Your task to perform on an android device: snooze an email in the gmail app Image 0: 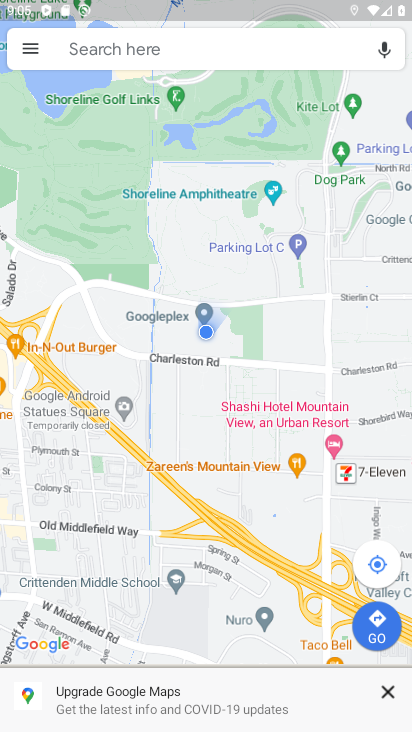
Step 0: press home button
Your task to perform on an android device: snooze an email in the gmail app Image 1: 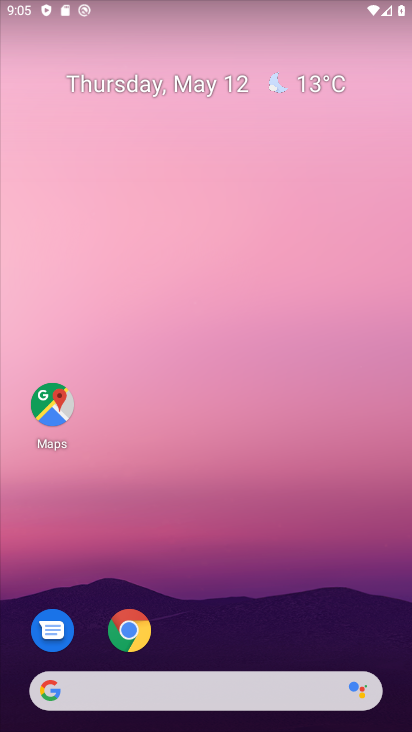
Step 1: drag from (141, 689) to (218, 251)
Your task to perform on an android device: snooze an email in the gmail app Image 2: 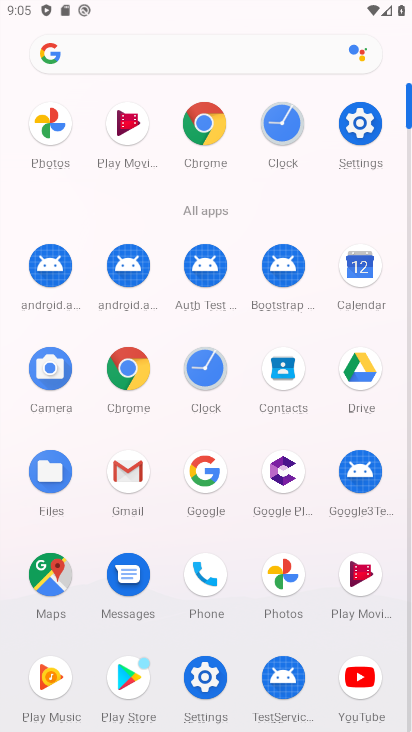
Step 2: click (129, 480)
Your task to perform on an android device: snooze an email in the gmail app Image 3: 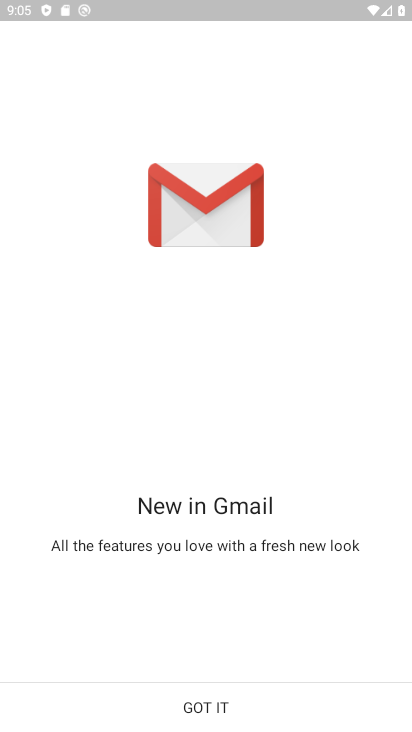
Step 3: click (216, 726)
Your task to perform on an android device: snooze an email in the gmail app Image 4: 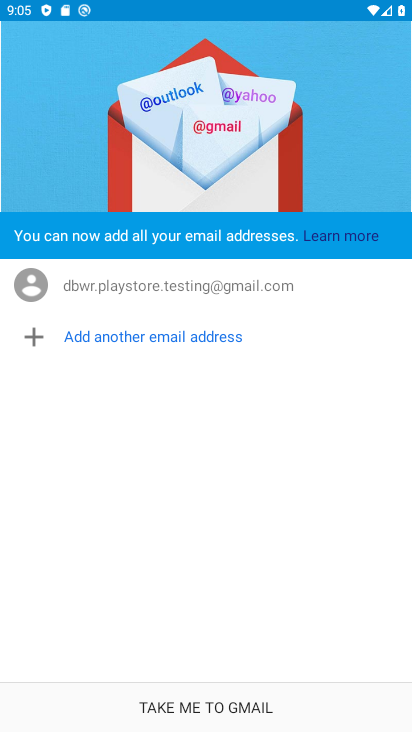
Step 4: click (216, 726)
Your task to perform on an android device: snooze an email in the gmail app Image 5: 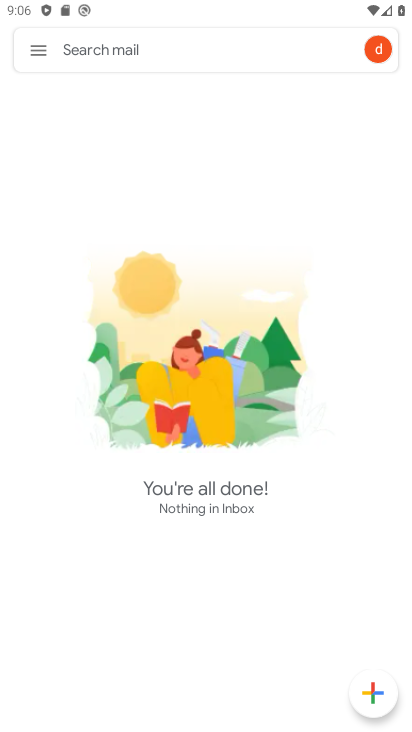
Step 5: click (50, 58)
Your task to perform on an android device: snooze an email in the gmail app Image 6: 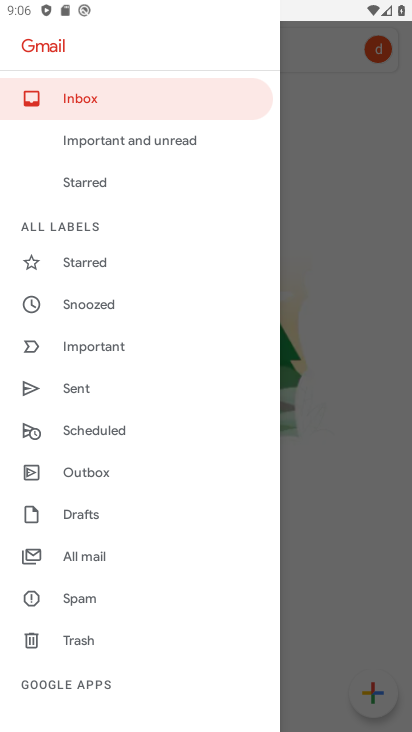
Step 6: click (63, 556)
Your task to perform on an android device: snooze an email in the gmail app Image 7: 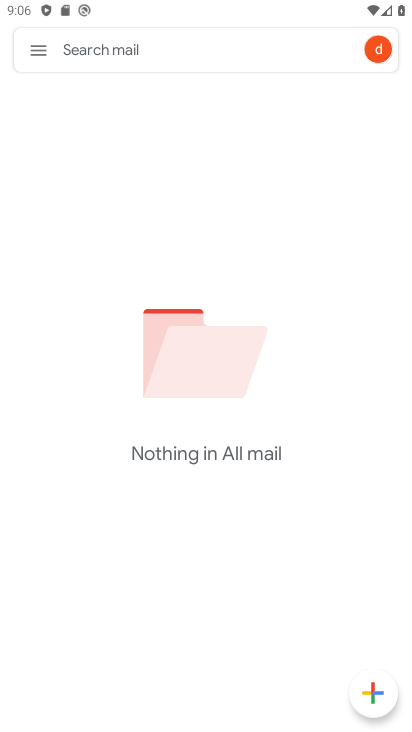
Step 7: task complete